Your task to perform on an android device: Open sound settings Image 0: 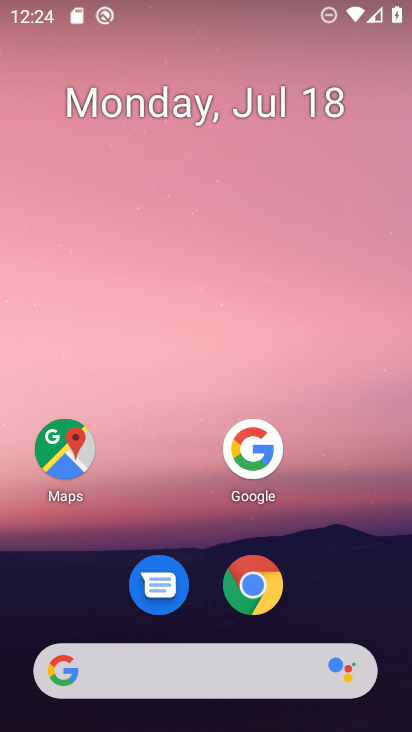
Step 0: click (410, 631)
Your task to perform on an android device: Open sound settings Image 1: 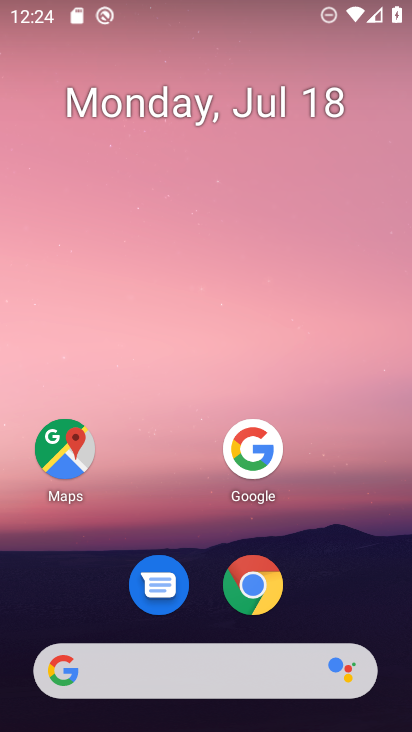
Step 1: drag from (269, 658) to (341, 186)
Your task to perform on an android device: Open sound settings Image 2: 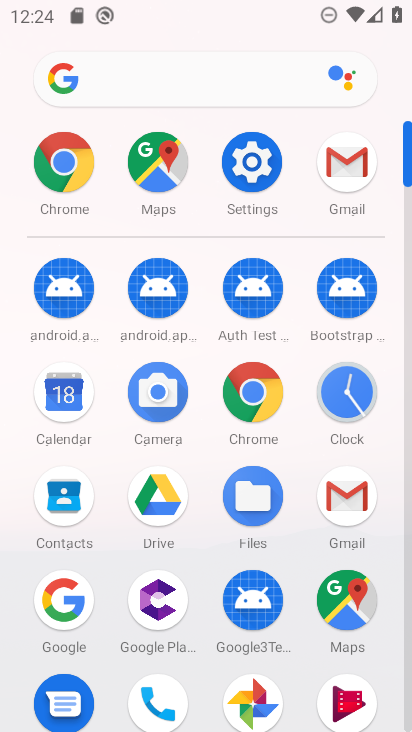
Step 2: click (251, 154)
Your task to perform on an android device: Open sound settings Image 3: 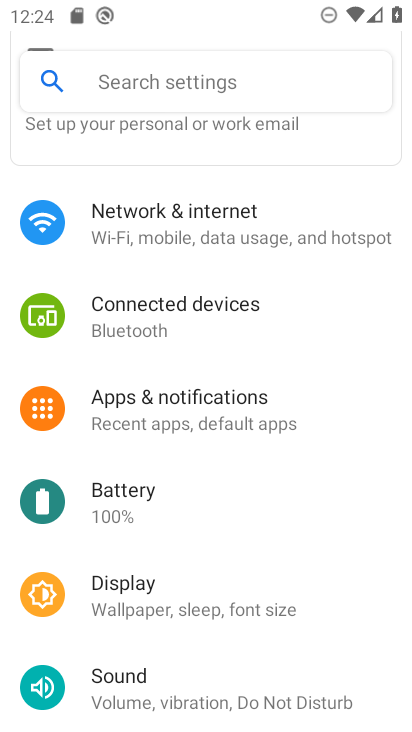
Step 3: click (137, 677)
Your task to perform on an android device: Open sound settings Image 4: 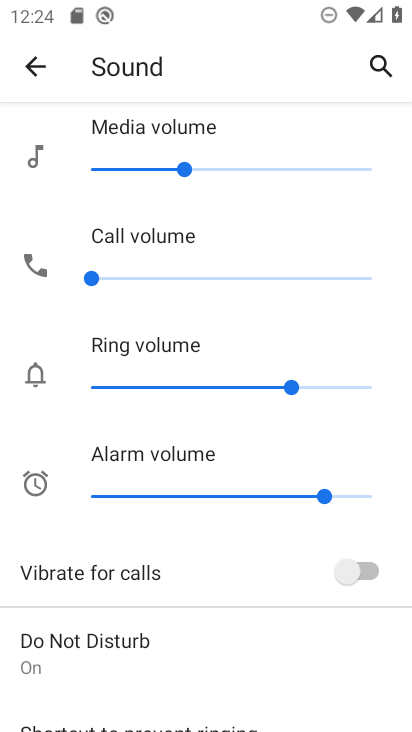
Step 4: task complete